Your task to perform on an android device: install app "ColorNote Notepad Notes" Image 0: 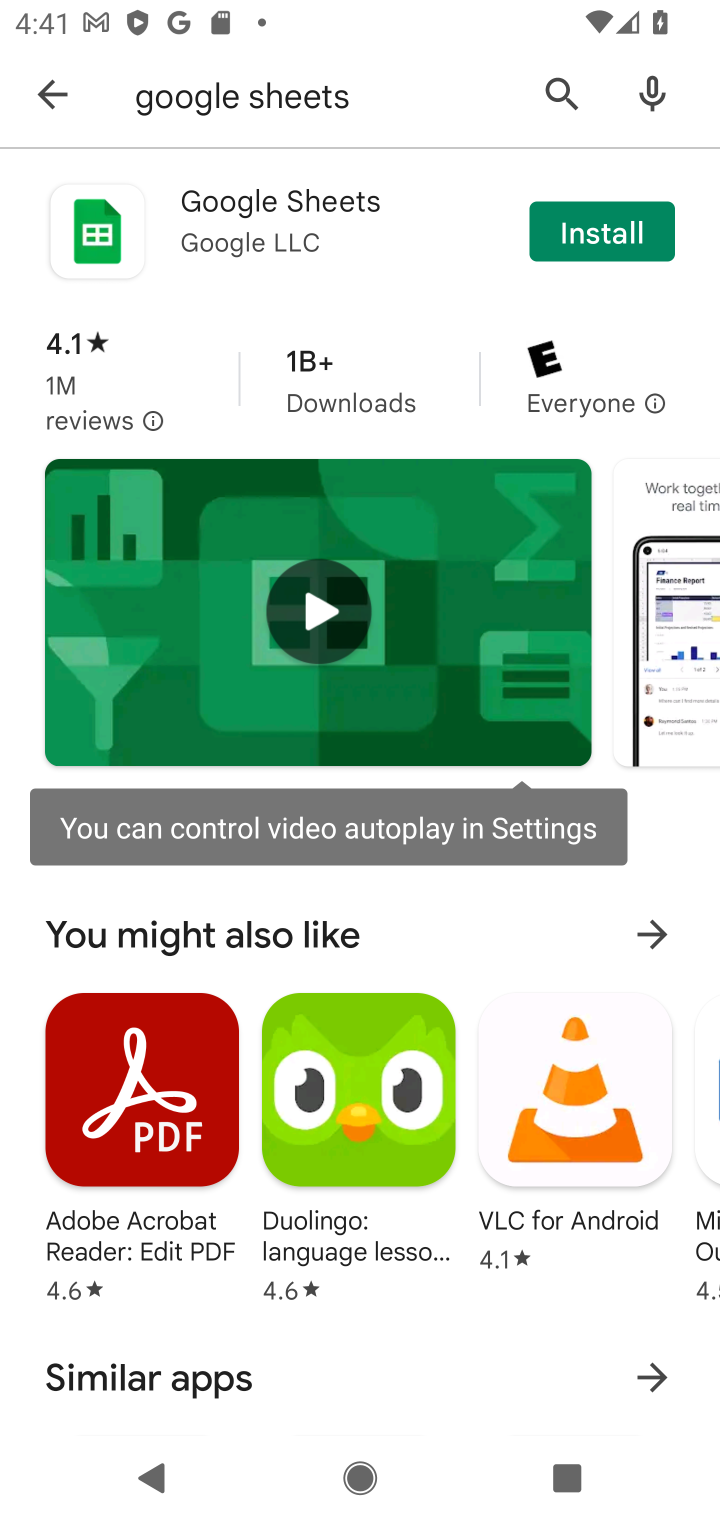
Step 0: press home button
Your task to perform on an android device: install app "ColorNote Notepad Notes" Image 1: 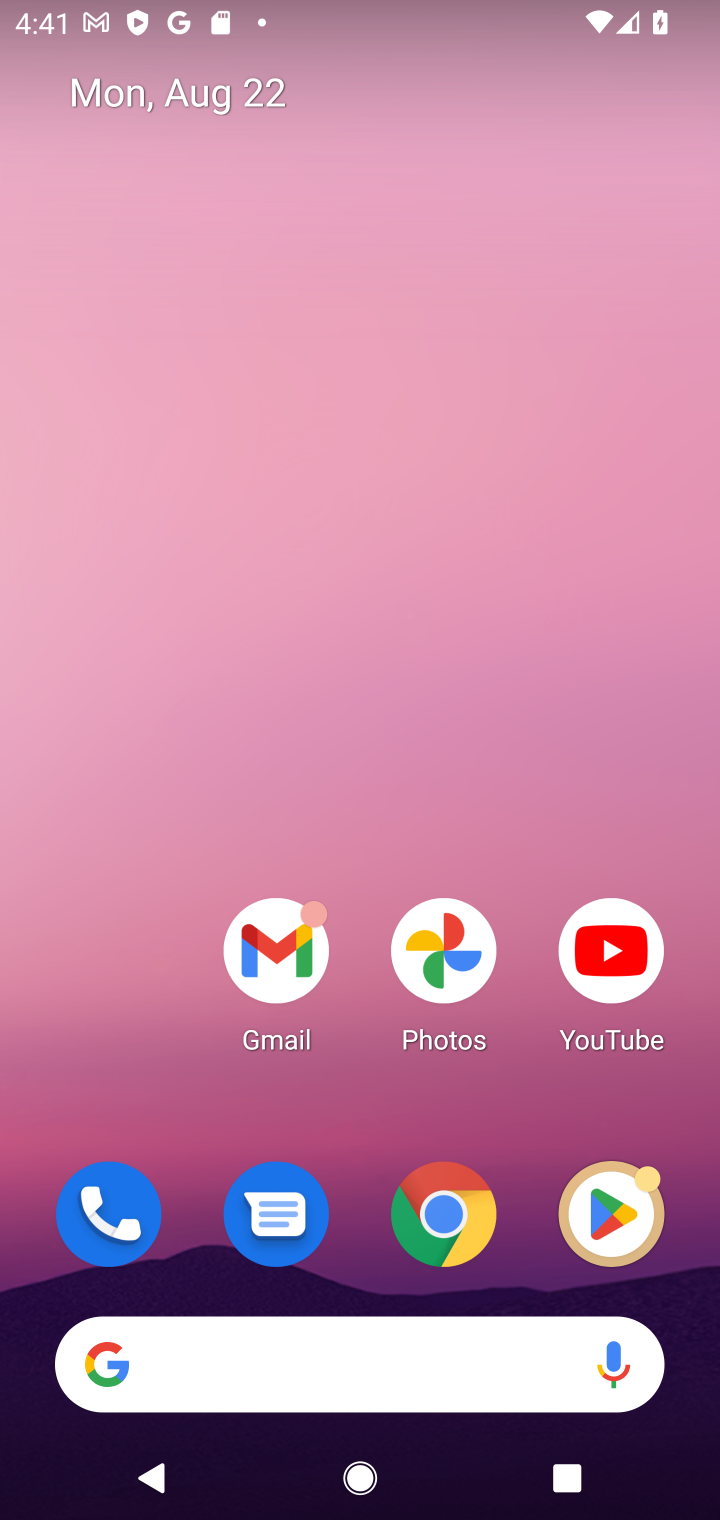
Step 1: click (626, 1213)
Your task to perform on an android device: install app "ColorNote Notepad Notes" Image 2: 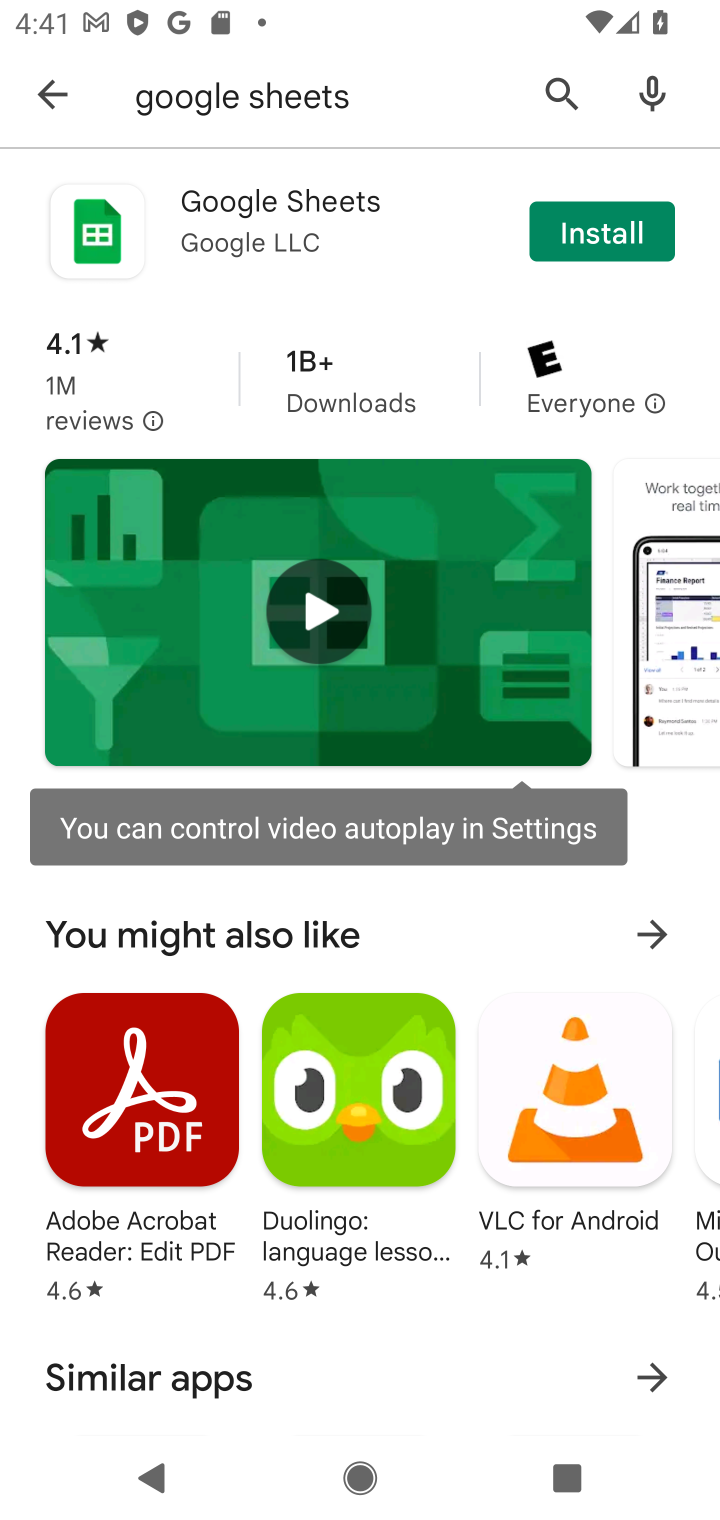
Step 2: click (559, 91)
Your task to perform on an android device: install app "ColorNote Notepad Notes" Image 3: 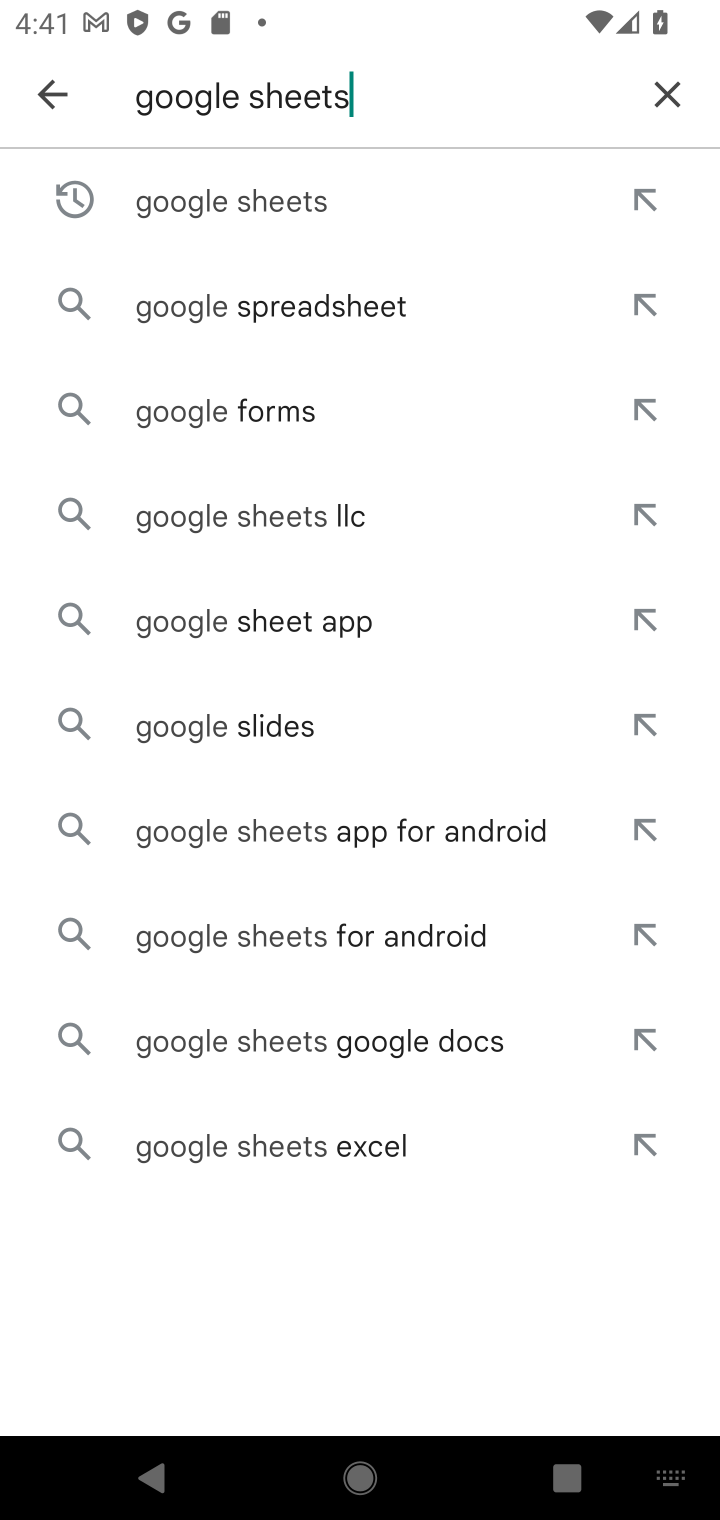
Step 3: click (672, 96)
Your task to perform on an android device: install app "ColorNote Notepad Notes" Image 4: 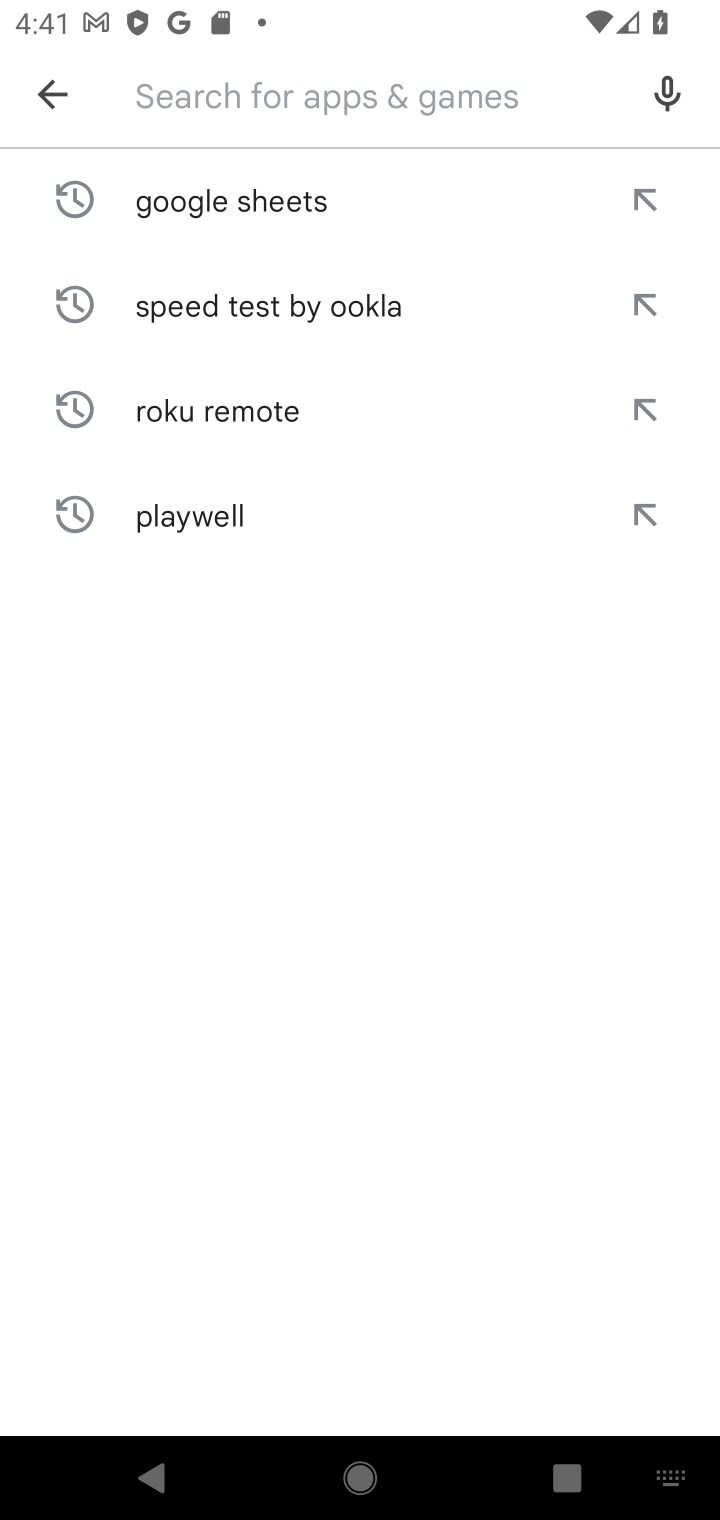
Step 4: type "colornote notepad notes"
Your task to perform on an android device: install app "ColorNote Notepad Notes" Image 5: 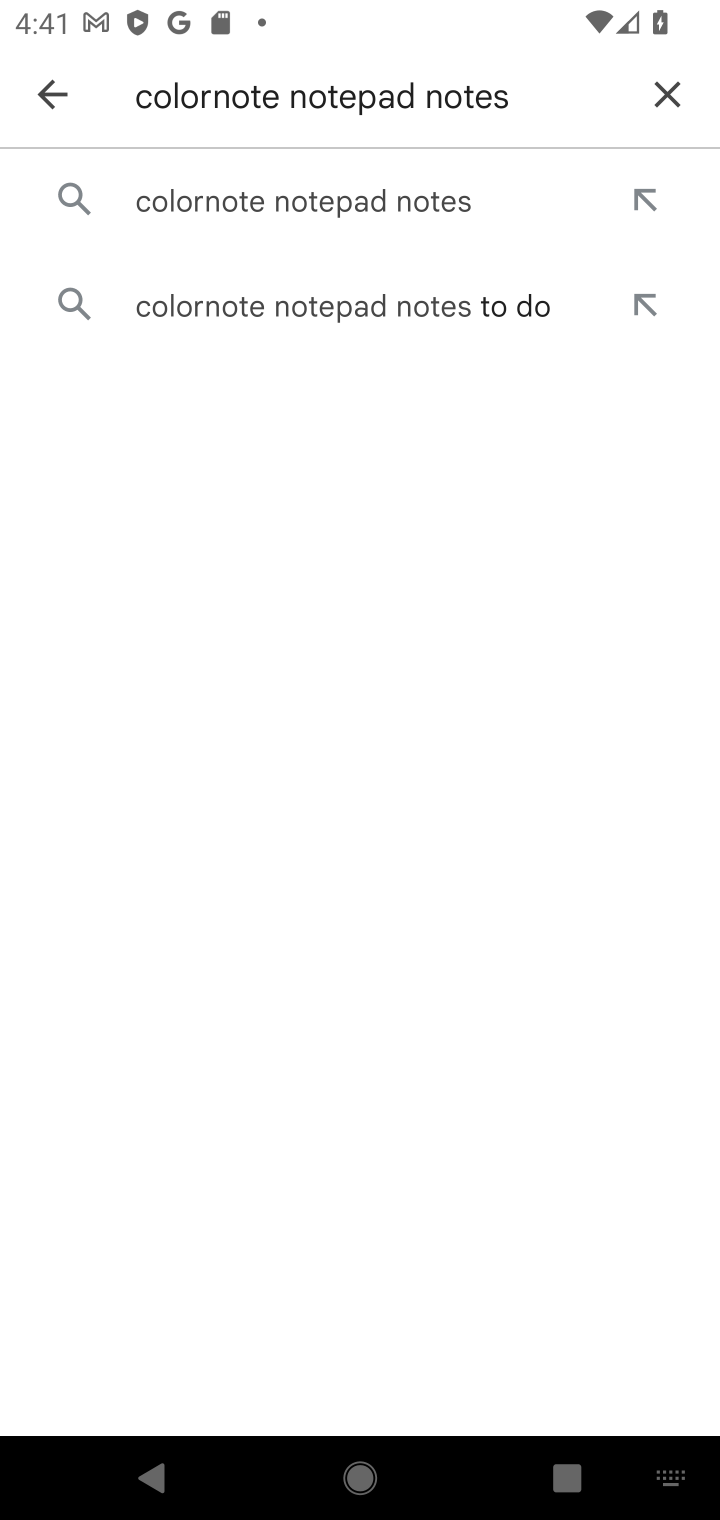
Step 5: click (215, 202)
Your task to perform on an android device: install app "ColorNote Notepad Notes" Image 6: 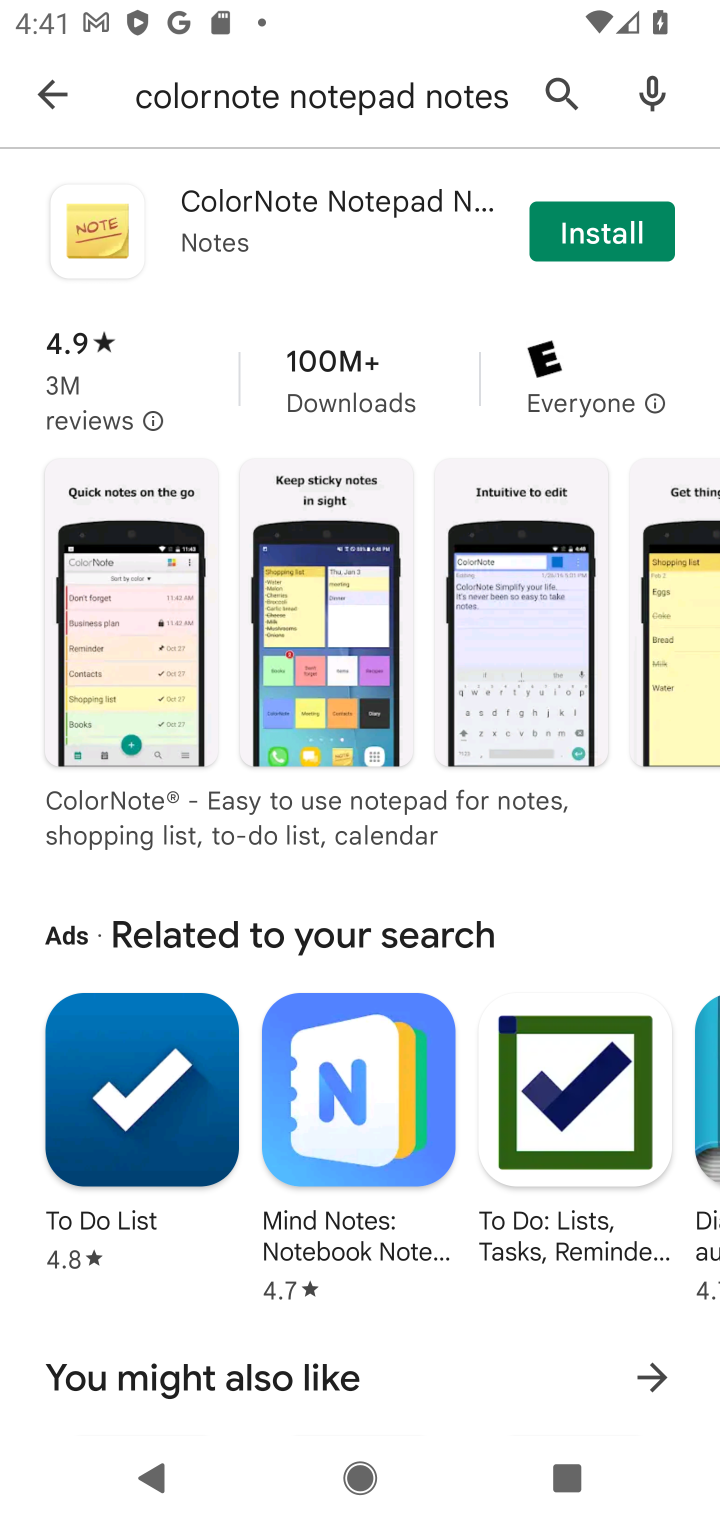
Step 6: click (600, 228)
Your task to perform on an android device: install app "ColorNote Notepad Notes" Image 7: 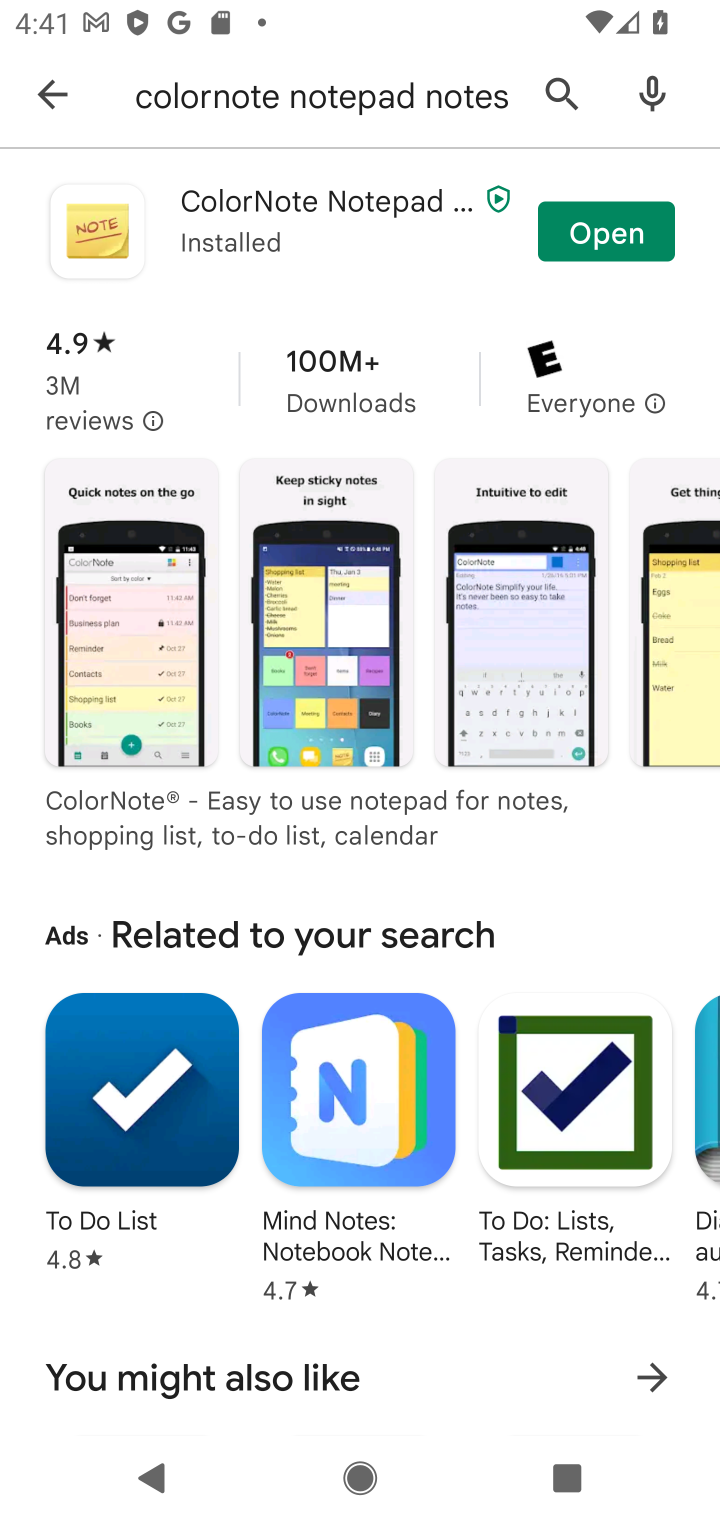
Step 7: task complete